Your task to perform on an android device: turn on priority inbox in the gmail app Image 0: 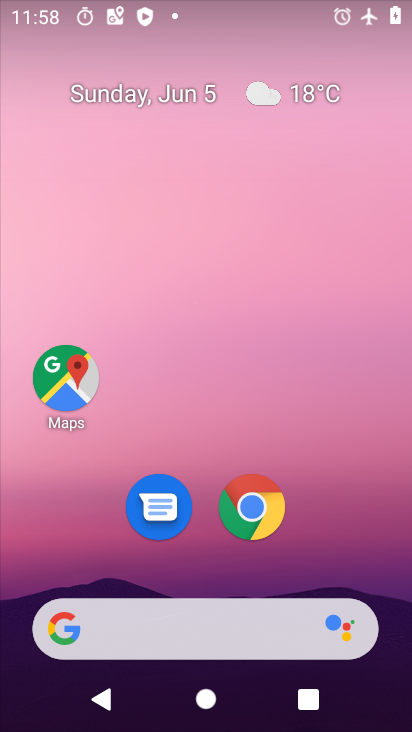
Step 0: drag from (225, 727) to (209, 68)
Your task to perform on an android device: turn on priority inbox in the gmail app Image 1: 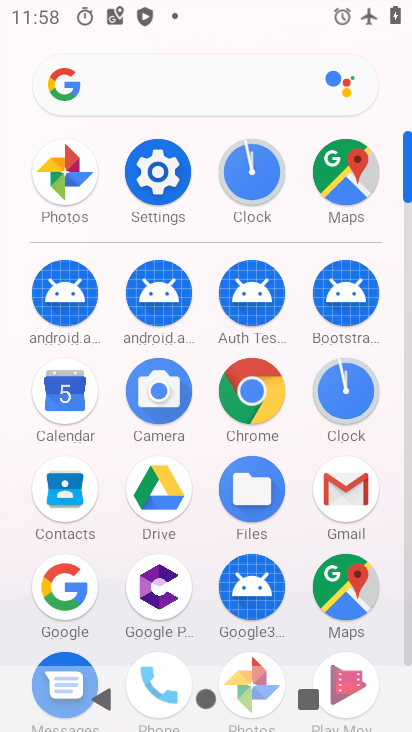
Step 1: click (351, 489)
Your task to perform on an android device: turn on priority inbox in the gmail app Image 2: 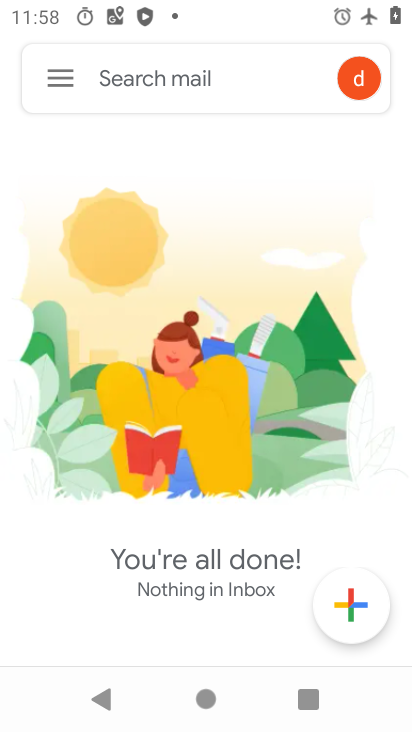
Step 2: click (57, 77)
Your task to perform on an android device: turn on priority inbox in the gmail app Image 3: 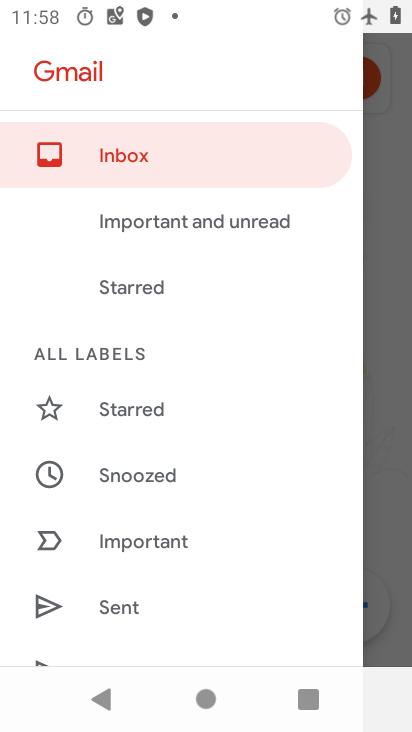
Step 3: drag from (141, 638) to (140, 159)
Your task to perform on an android device: turn on priority inbox in the gmail app Image 4: 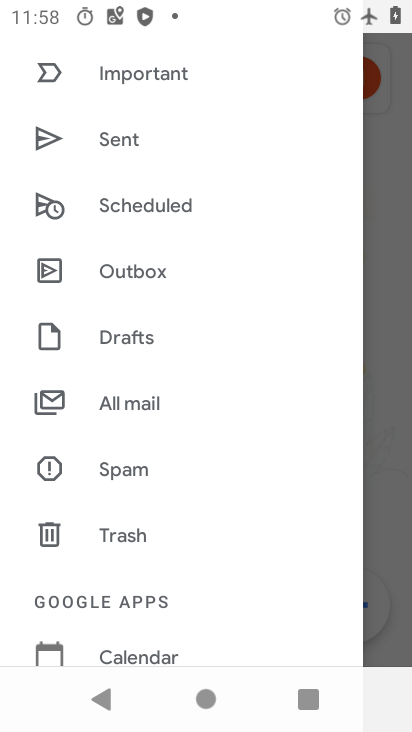
Step 4: drag from (156, 644) to (155, 179)
Your task to perform on an android device: turn on priority inbox in the gmail app Image 5: 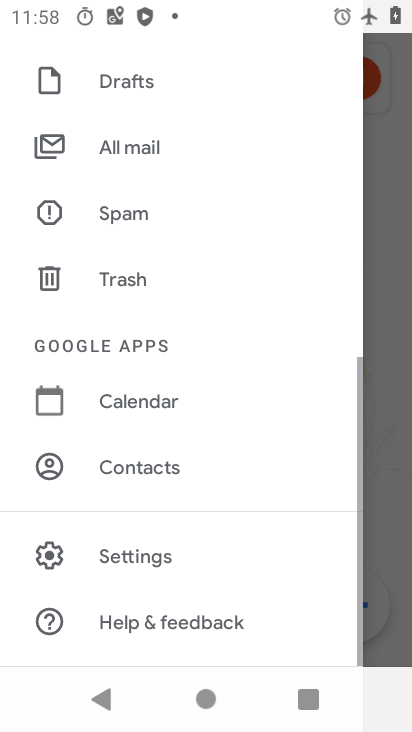
Step 5: click (145, 558)
Your task to perform on an android device: turn on priority inbox in the gmail app Image 6: 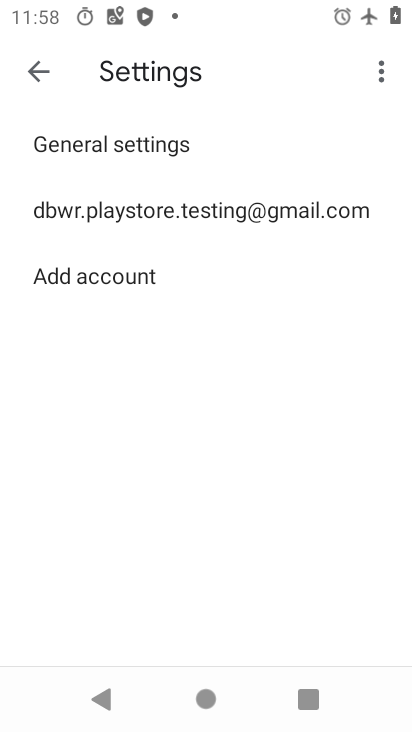
Step 6: click (144, 211)
Your task to perform on an android device: turn on priority inbox in the gmail app Image 7: 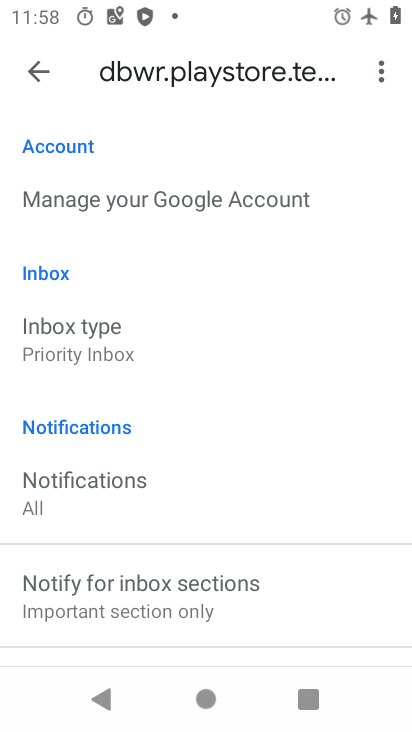
Step 7: task complete